Your task to perform on an android device: turn on airplane mode Image 0: 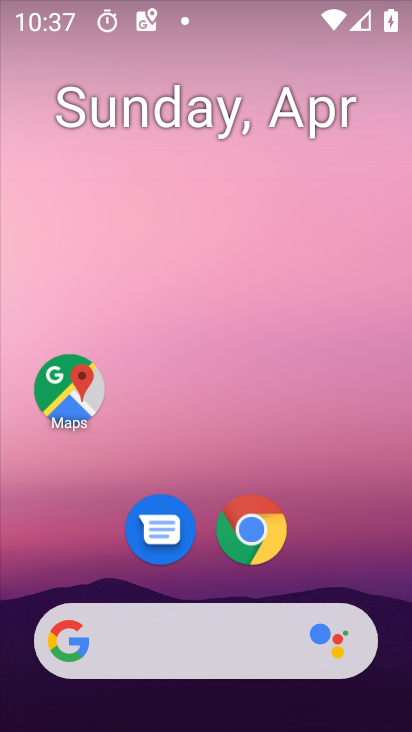
Step 0: drag from (190, 492) to (218, 125)
Your task to perform on an android device: turn on airplane mode Image 1: 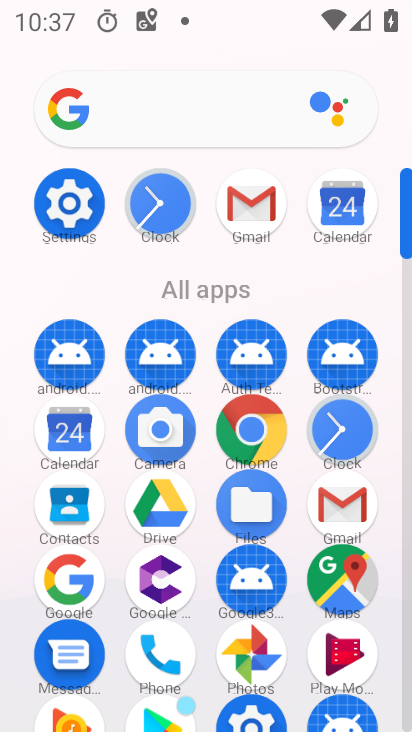
Step 1: click (90, 202)
Your task to perform on an android device: turn on airplane mode Image 2: 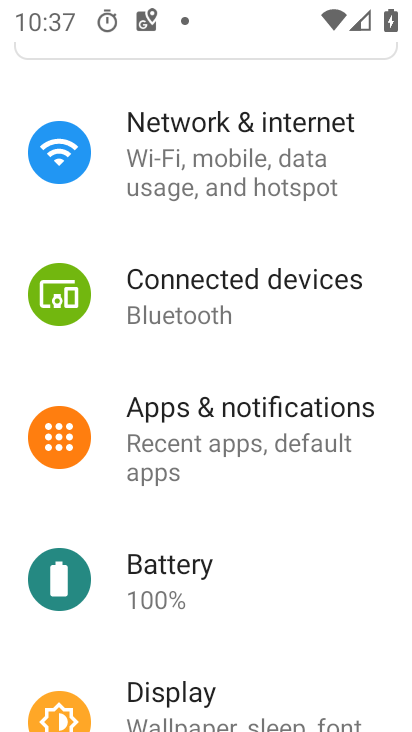
Step 2: click (208, 172)
Your task to perform on an android device: turn on airplane mode Image 3: 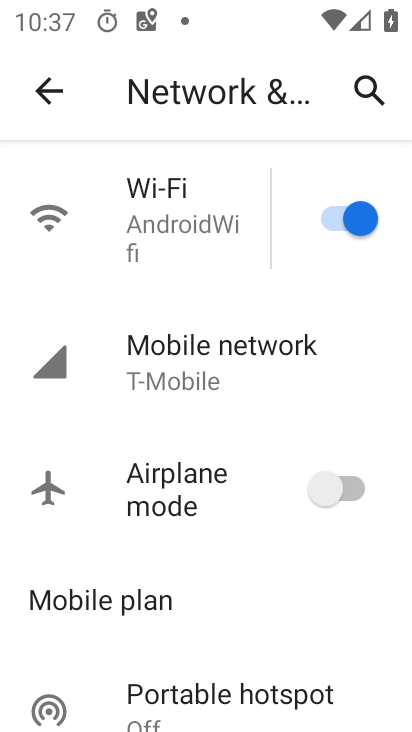
Step 3: click (319, 486)
Your task to perform on an android device: turn on airplane mode Image 4: 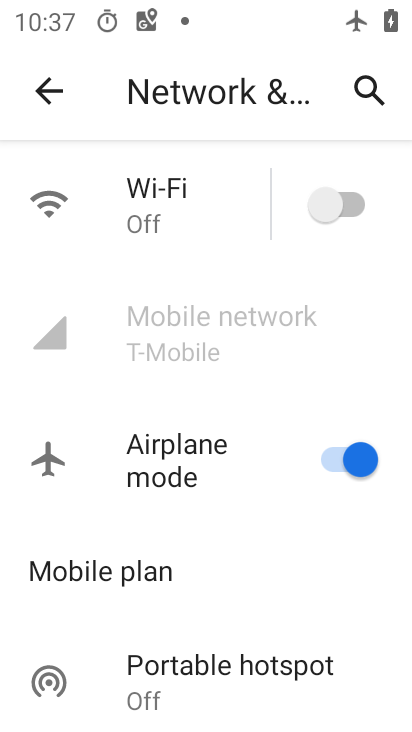
Step 4: task complete